Your task to perform on an android device: turn on airplane mode Image 0: 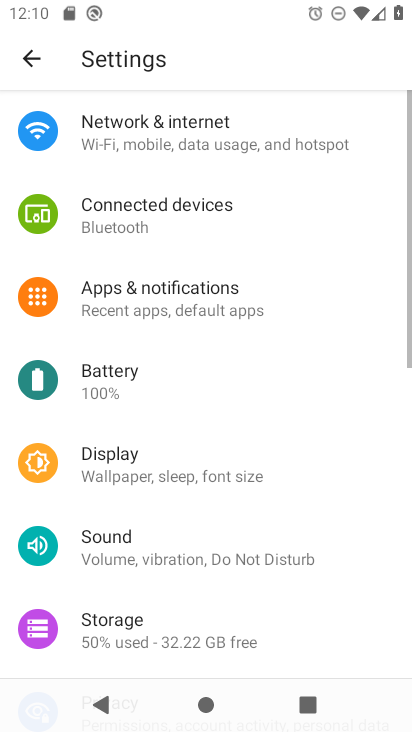
Step 0: press home button
Your task to perform on an android device: turn on airplane mode Image 1: 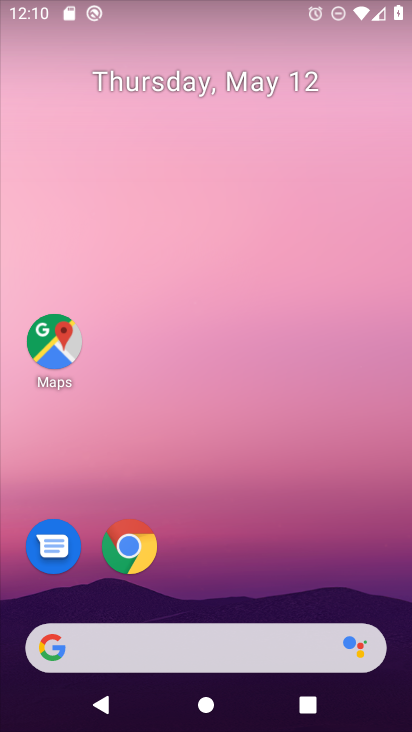
Step 1: drag from (283, 0) to (296, 521)
Your task to perform on an android device: turn on airplane mode Image 2: 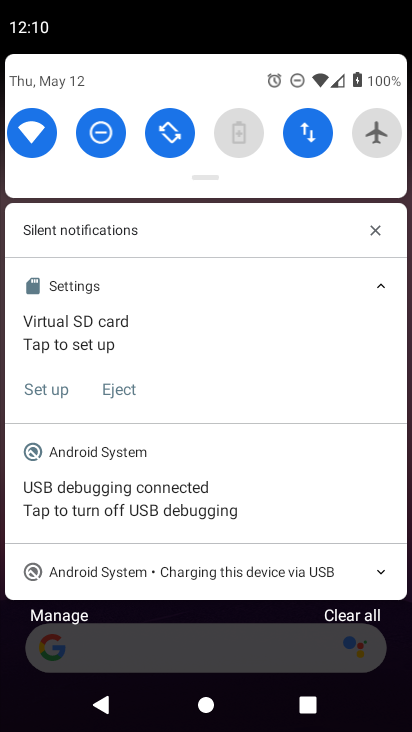
Step 2: click (384, 132)
Your task to perform on an android device: turn on airplane mode Image 3: 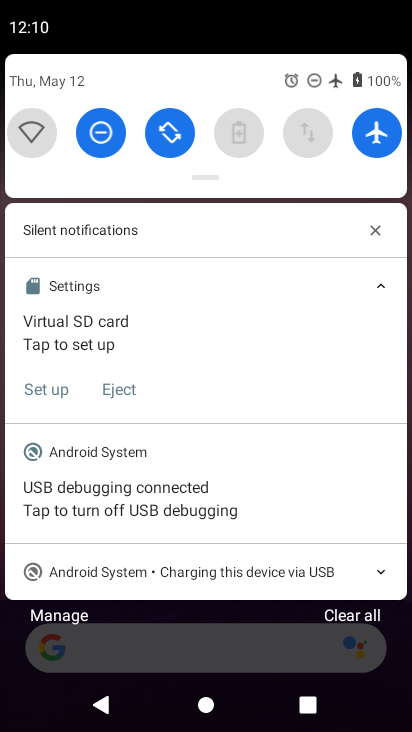
Step 3: task complete